Your task to perform on an android device: toggle notifications settings in the gmail app Image 0: 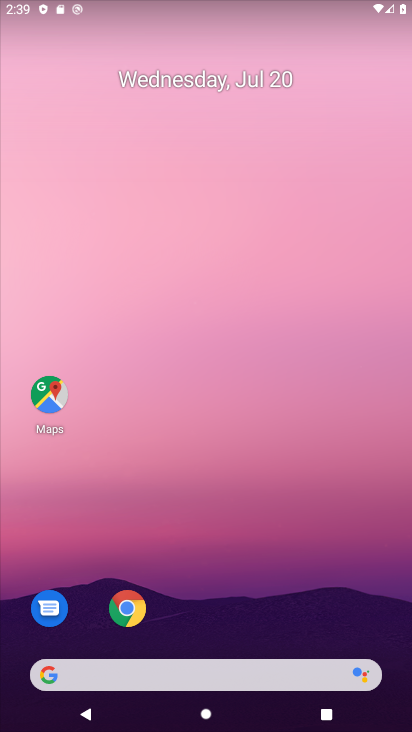
Step 0: drag from (255, 625) to (247, 45)
Your task to perform on an android device: toggle notifications settings in the gmail app Image 1: 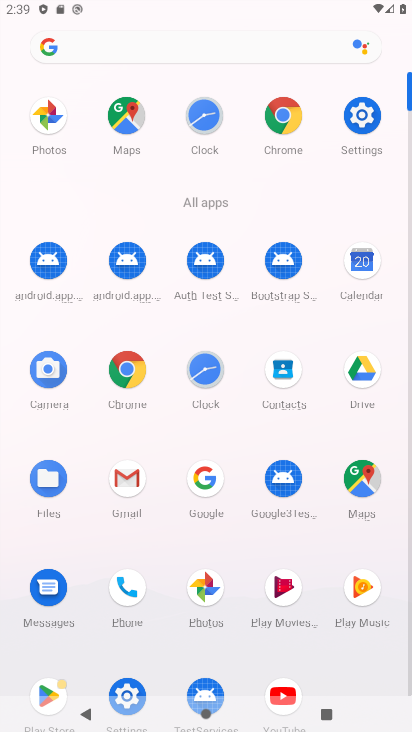
Step 1: click (131, 487)
Your task to perform on an android device: toggle notifications settings in the gmail app Image 2: 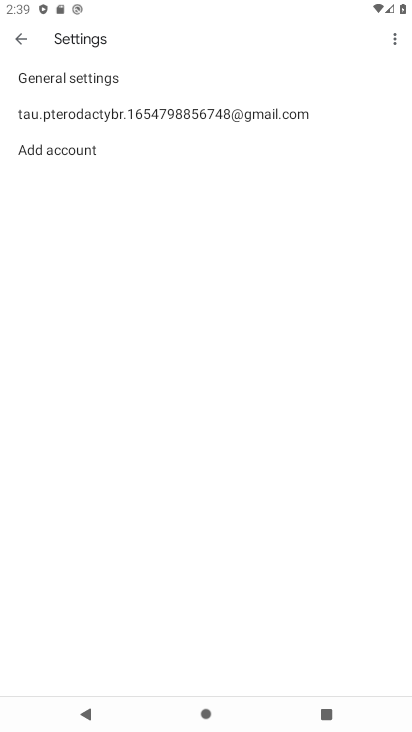
Step 2: click (94, 109)
Your task to perform on an android device: toggle notifications settings in the gmail app Image 3: 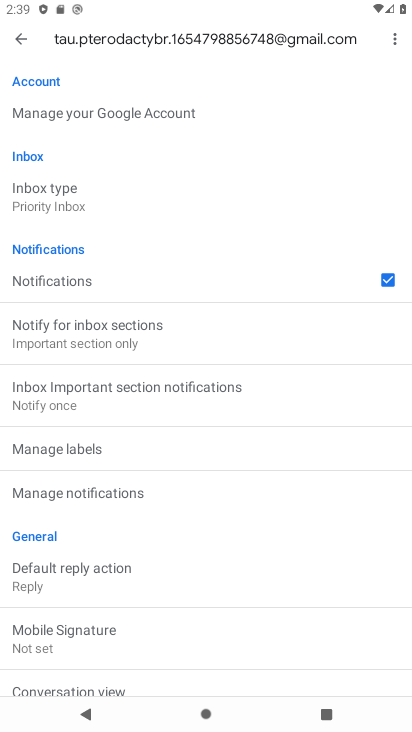
Step 3: click (134, 497)
Your task to perform on an android device: toggle notifications settings in the gmail app Image 4: 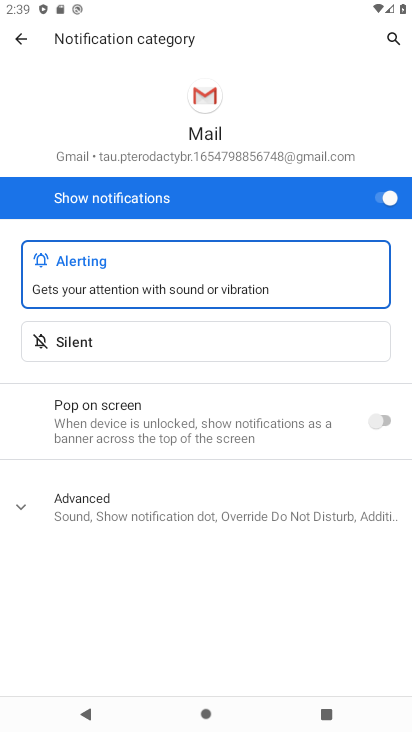
Step 4: click (376, 192)
Your task to perform on an android device: toggle notifications settings in the gmail app Image 5: 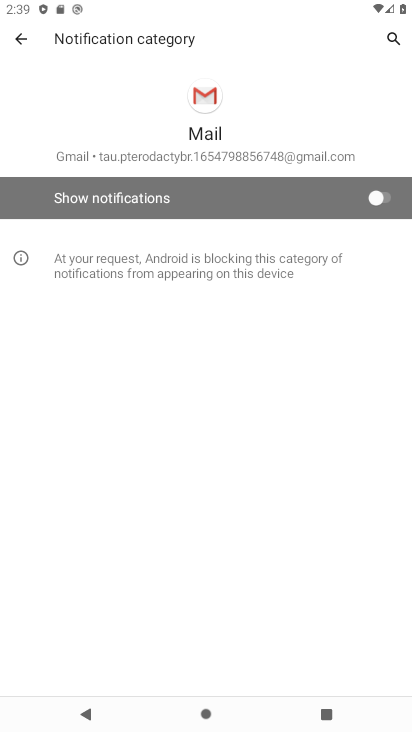
Step 5: task complete